Your task to perform on an android device: Open Reddit.com Image 0: 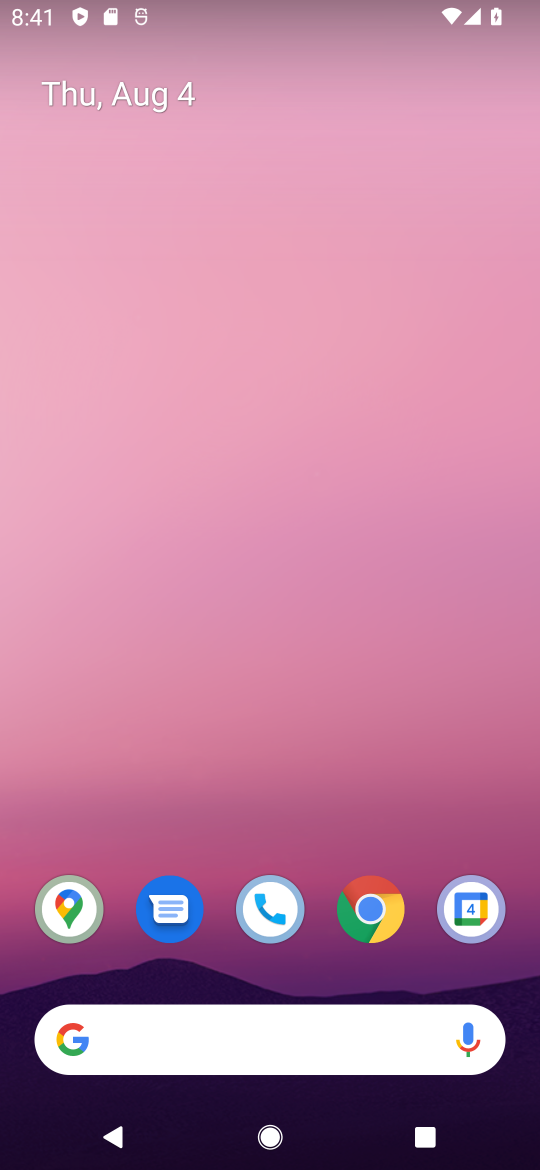
Step 0: press home button
Your task to perform on an android device: Open Reddit.com Image 1: 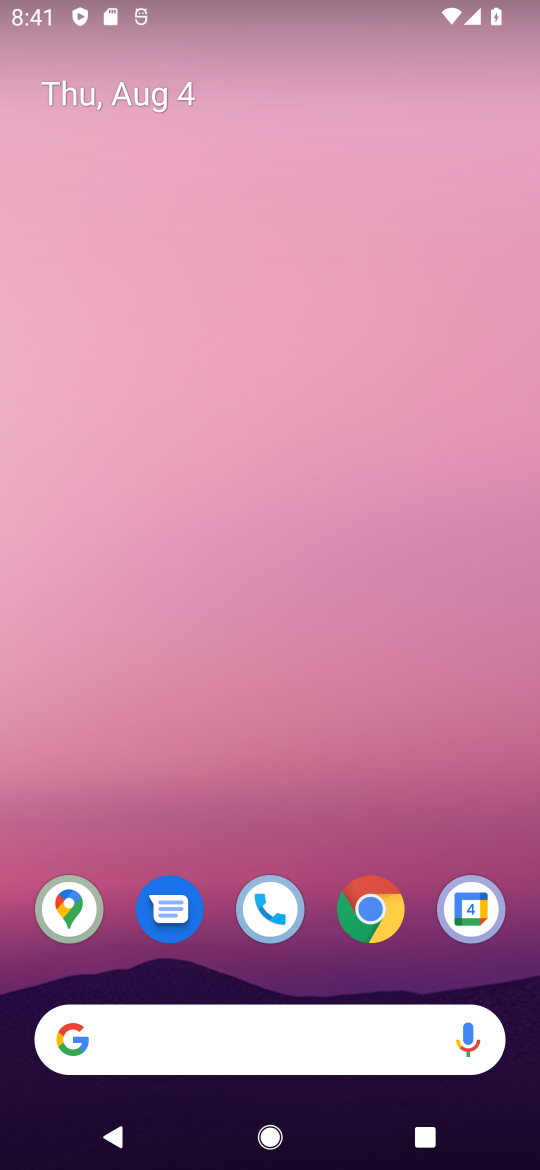
Step 1: drag from (310, 843) to (350, 211)
Your task to perform on an android device: Open Reddit.com Image 2: 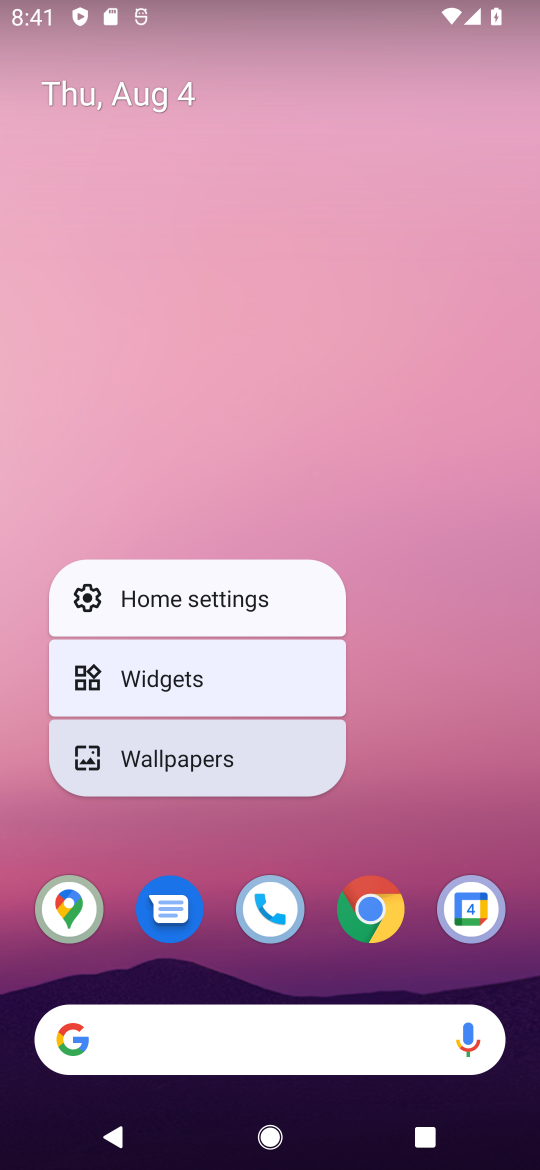
Step 2: click (405, 613)
Your task to perform on an android device: Open Reddit.com Image 3: 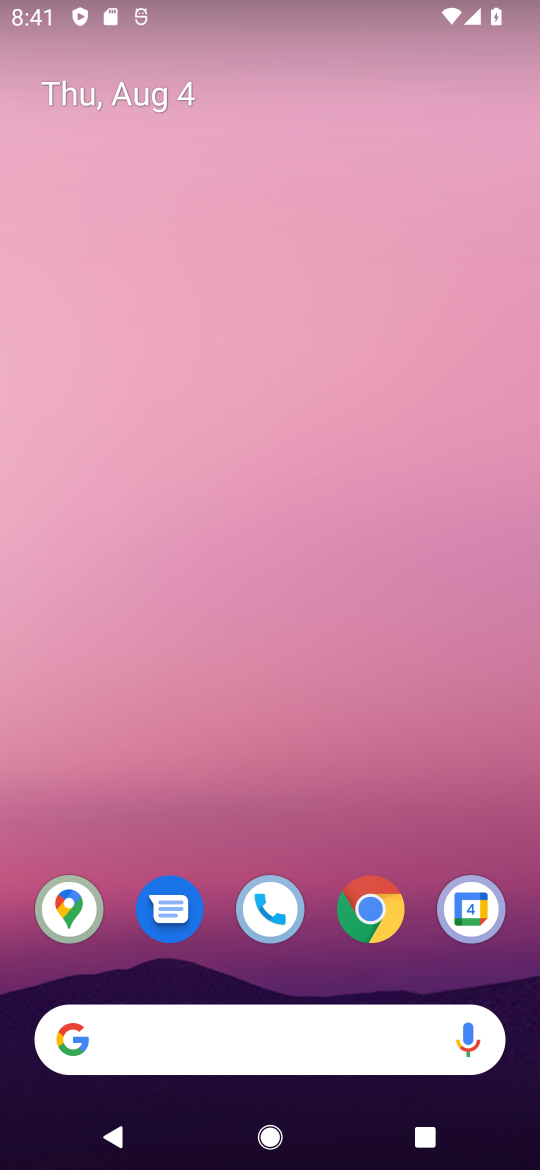
Step 3: drag from (318, 805) to (351, 112)
Your task to perform on an android device: Open Reddit.com Image 4: 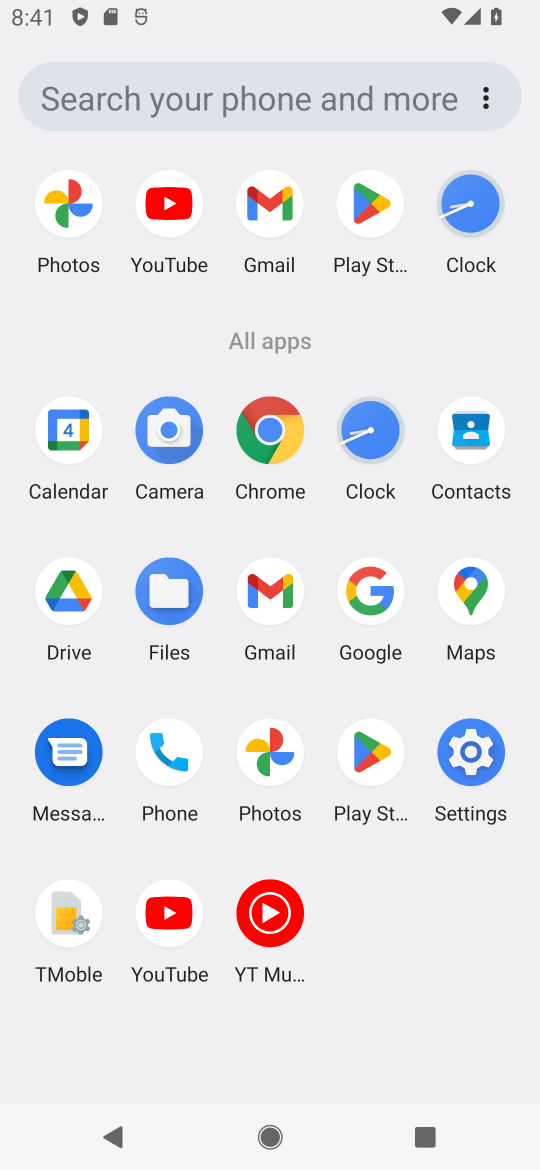
Step 4: click (274, 446)
Your task to perform on an android device: Open Reddit.com Image 5: 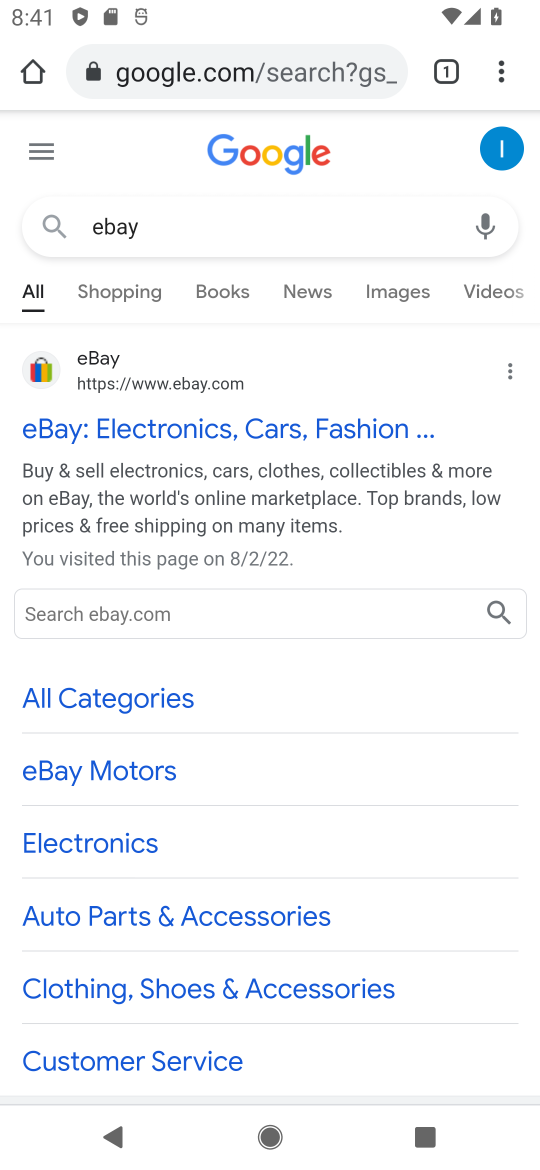
Step 5: click (288, 72)
Your task to perform on an android device: Open Reddit.com Image 6: 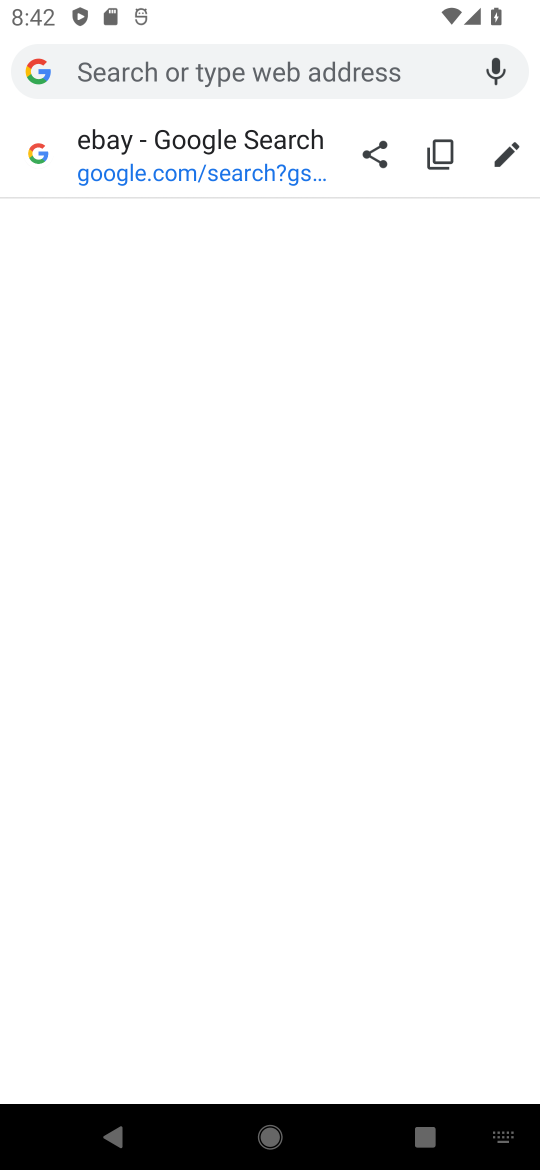
Step 6: type "reddit.com"
Your task to perform on an android device: Open Reddit.com Image 7: 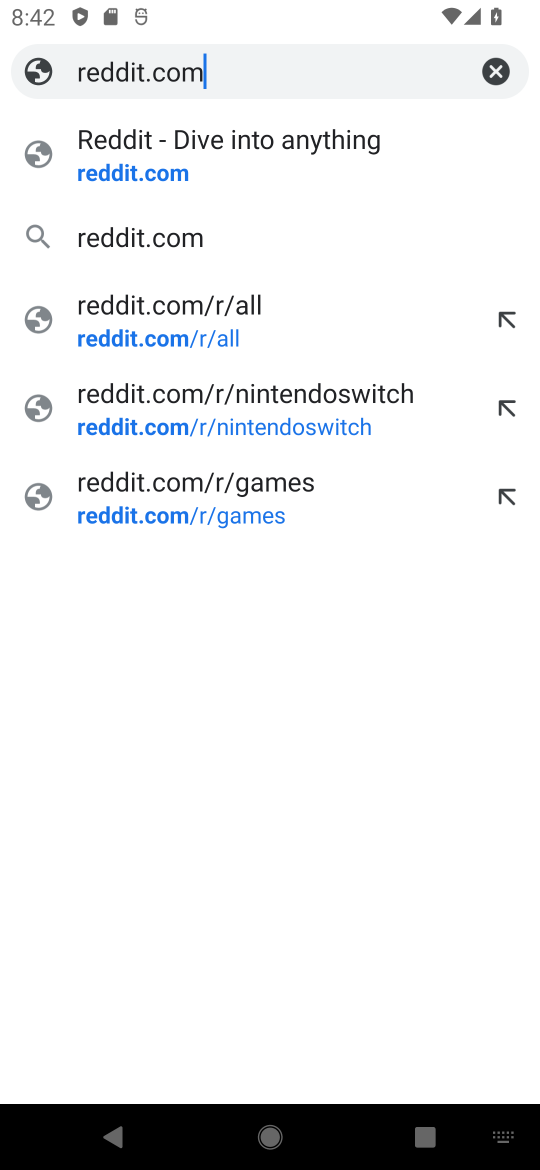
Step 7: click (240, 156)
Your task to perform on an android device: Open Reddit.com Image 8: 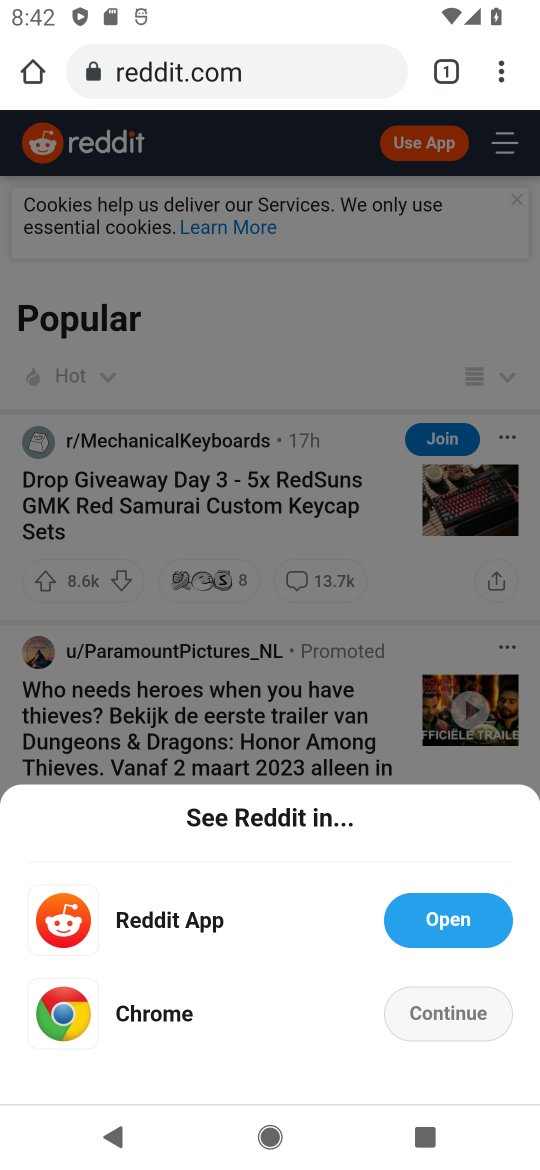
Step 8: task complete